Your task to perform on an android device: delete the emails in spam in the gmail app Image 0: 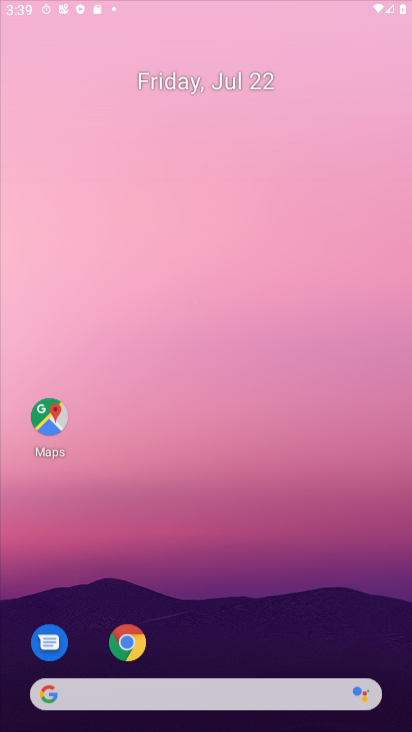
Step 0: press home button
Your task to perform on an android device: delete the emails in spam in the gmail app Image 1: 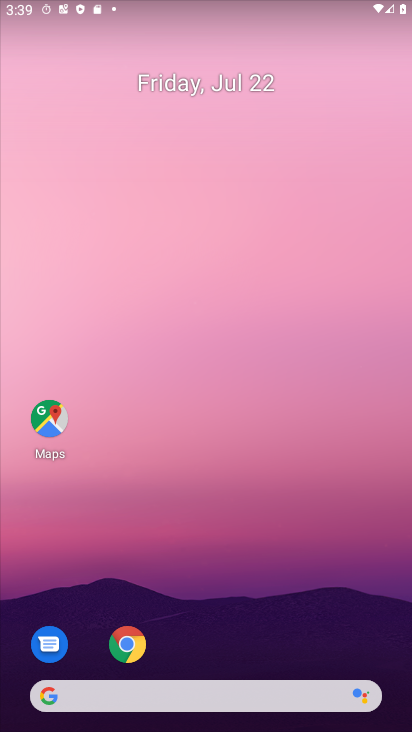
Step 1: drag from (207, 194) to (209, 148)
Your task to perform on an android device: delete the emails in spam in the gmail app Image 2: 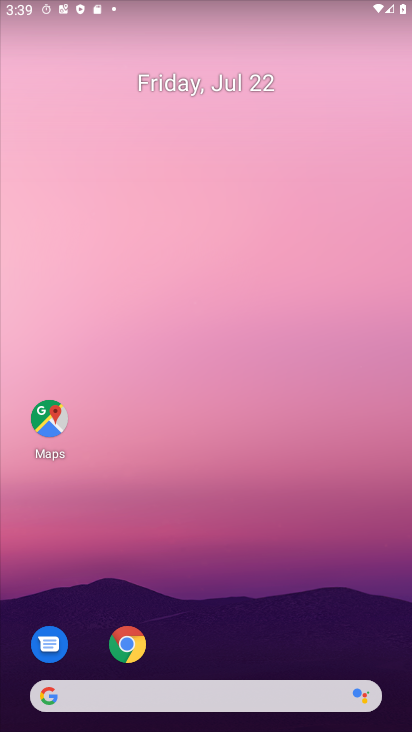
Step 2: drag from (228, 651) to (163, 10)
Your task to perform on an android device: delete the emails in spam in the gmail app Image 3: 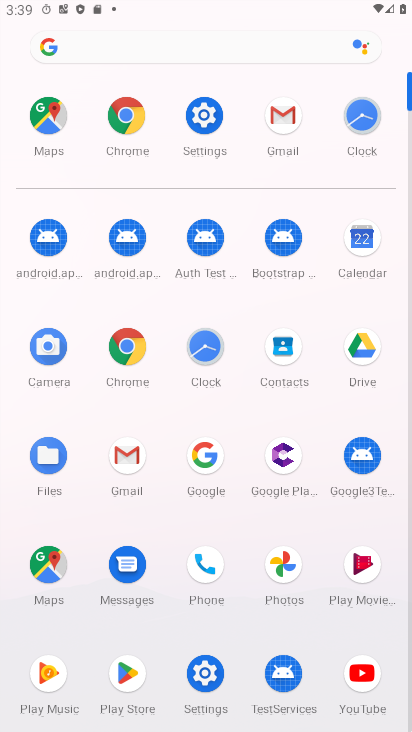
Step 3: click (289, 152)
Your task to perform on an android device: delete the emails in spam in the gmail app Image 4: 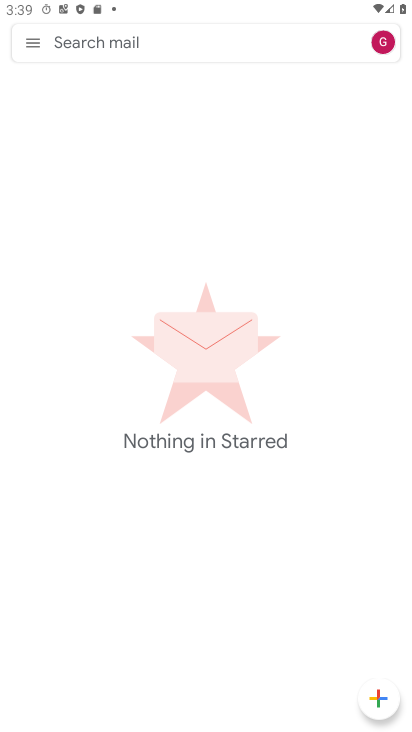
Step 4: click (38, 34)
Your task to perform on an android device: delete the emails in spam in the gmail app Image 5: 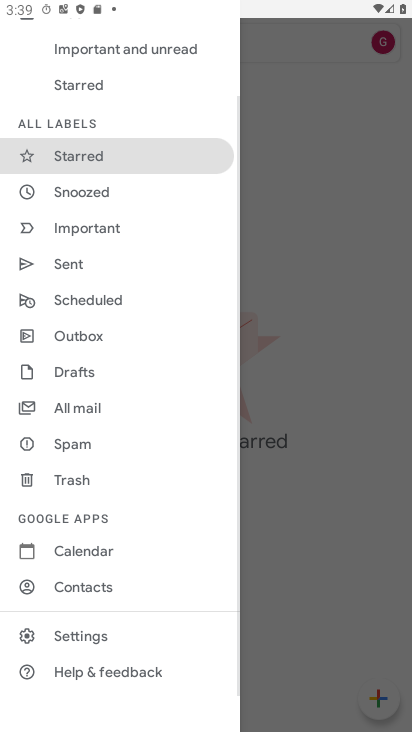
Step 5: click (89, 453)
Your task to perform on an android device: delete the emails in spam in the gmail app Image 6: 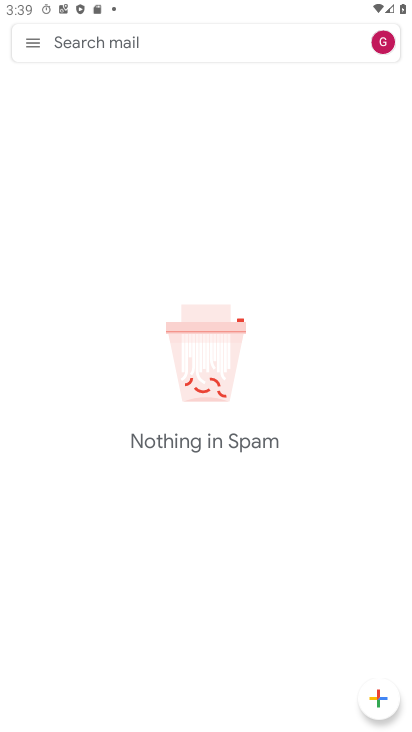
Step 6: task complete